Your task to perform on an android device: turn on priority inbox in the gmail app Image 0: 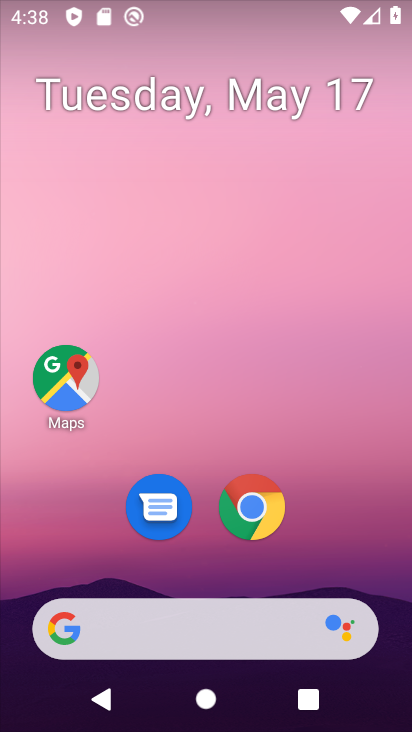
Step 0: drag from (291, 638) to (235, 275)
Your task to perform on an android device: turn on priority inbox in the gmail app Image 1: 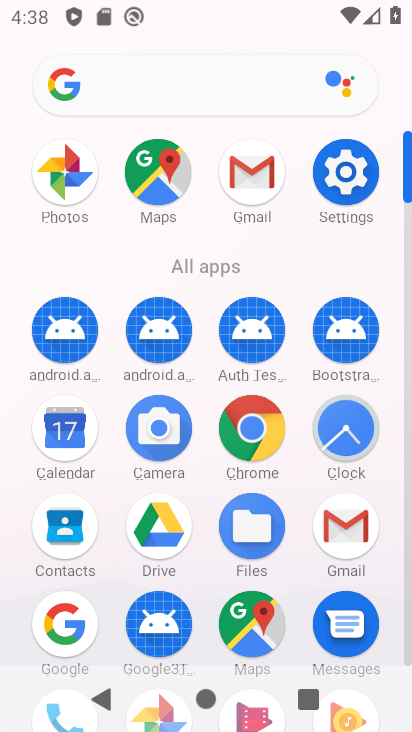
Step 1: click (248, 176)
Your task to perform on an android device: turn on priority inbox in the gmail app Image 2: 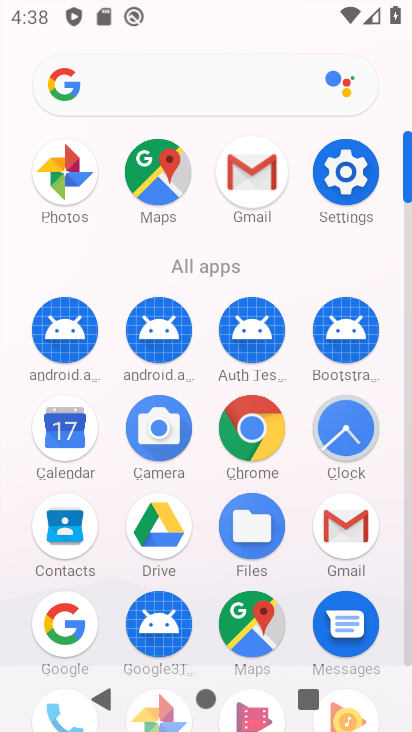
Step 2: click (250, 176)
Your task to perform on an android device: turn on priority inbox in the gmail app Image 3: 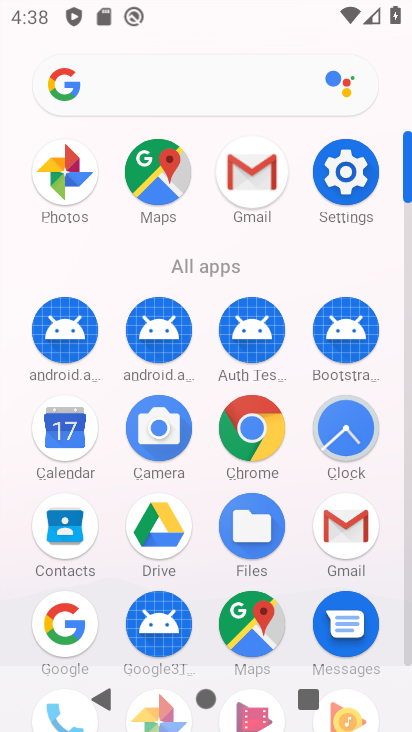
Step 3: click (247, 182)
Your task to perform on an android device: turn on priority inbox in the gmail app Image 4: 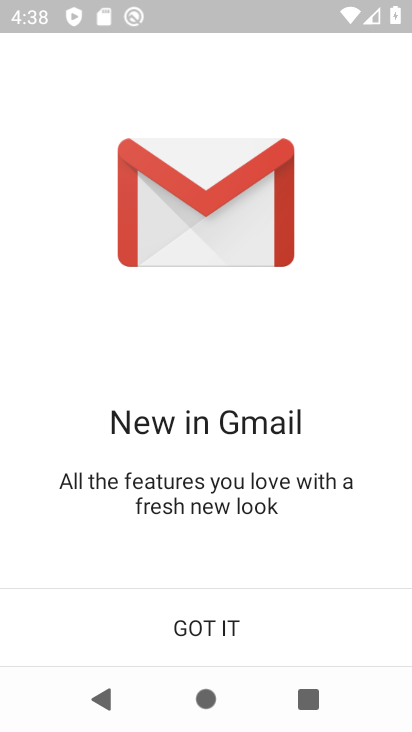
Step 4: click (200, 611)
Your task to perform on an android device: turn on priority inbox in the gmail app Image 5: 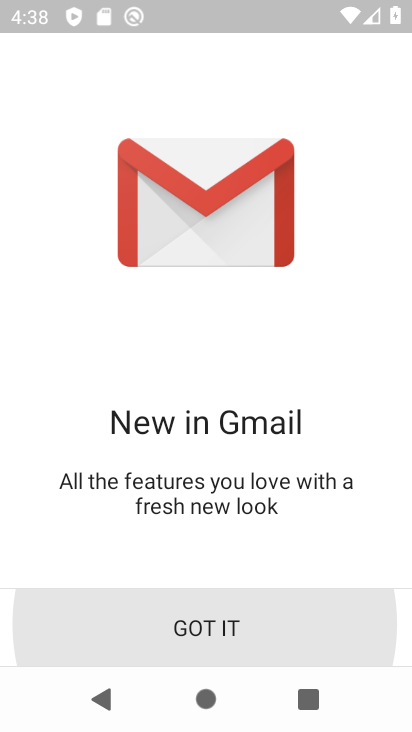
Step 5: click (201, 613)
Your task to perform on an android device: turn on priority inbox in the gmail app Image 6: 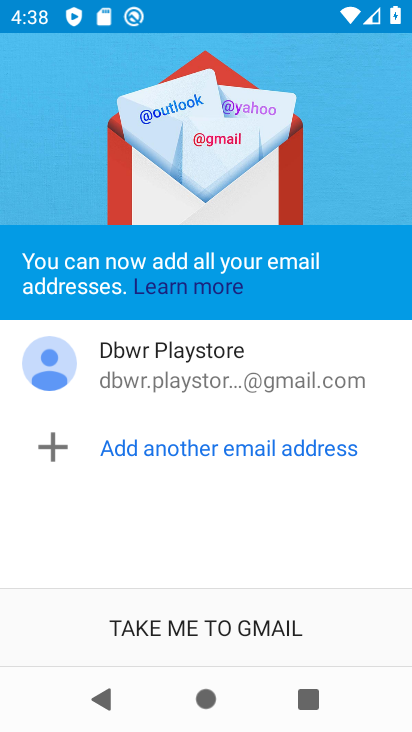
Step 6: click (210, 639)
Your task to perform on an android device: turn on priority inbox in the gmail app Image 7: 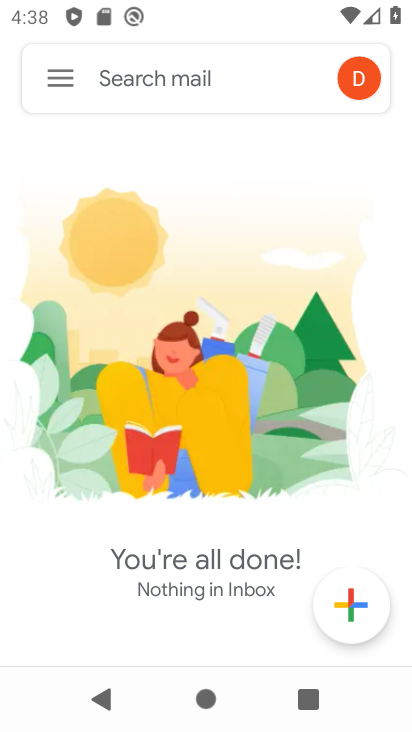
Step 7: click (49, 82)
Your task to perform on an android device: turn on priority inbox in the gmail app Image 8: 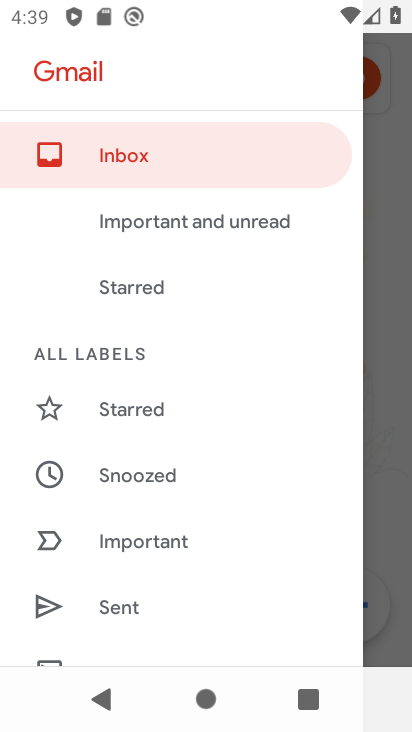
Step 8: drag from (211, 508) to (131, 307)
Your task to perform on an android device: turn on priority inbox in the gmail app Image 9: 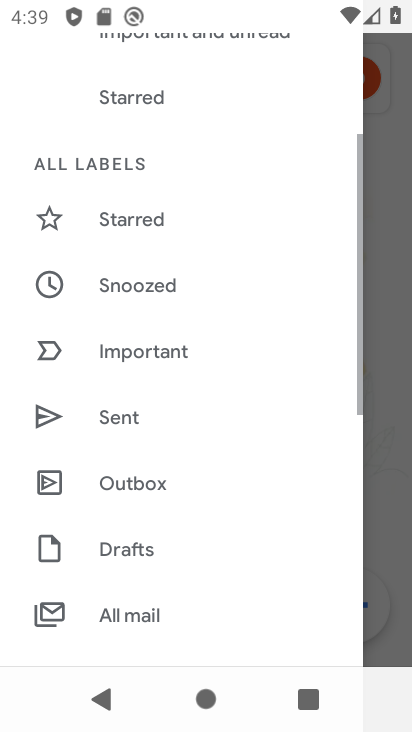
Step 9: drag from (174, 444) to (174, 215)
Your task to perform on an android device: turn on priority inbox in the gmail app Image 10: 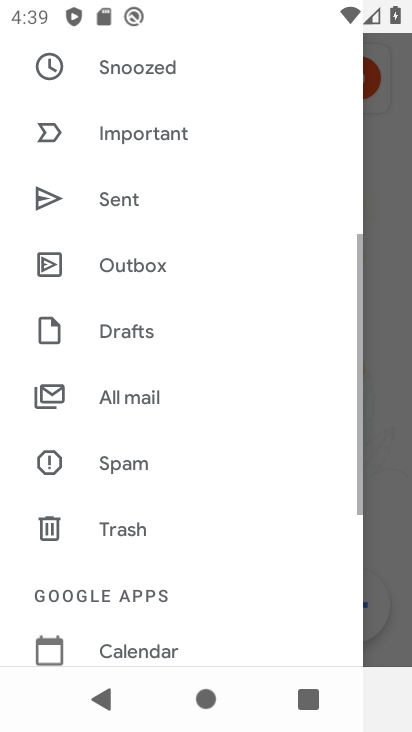
Step 10: drag from (248, 567) to (209, 281)
Your task to perform on an android device: turn on priority inbox in the gmail app Image 11: 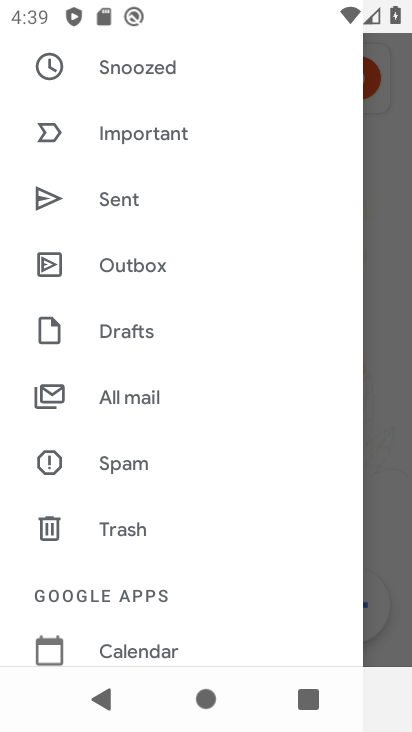
Step 11: drag from (199, 570) to (190, 148)
Your task to perform on an android device: turn on priority inbox in the gmail app Image 12: 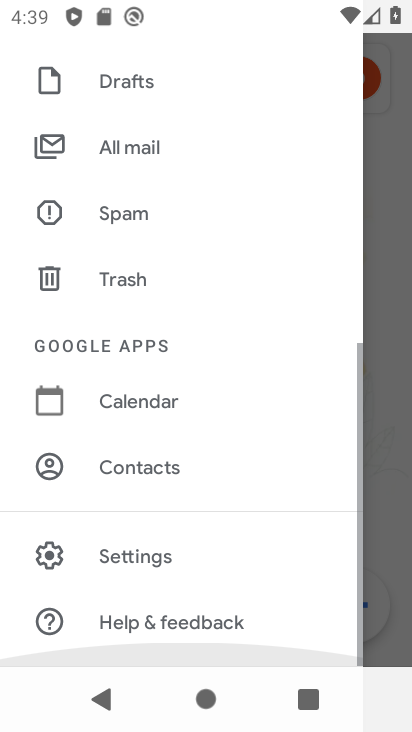
Step 12: drag from (187, 433) to (186, 65)
Your task to perform on an android device: turn on priority inbox in the gmail app Image 13: 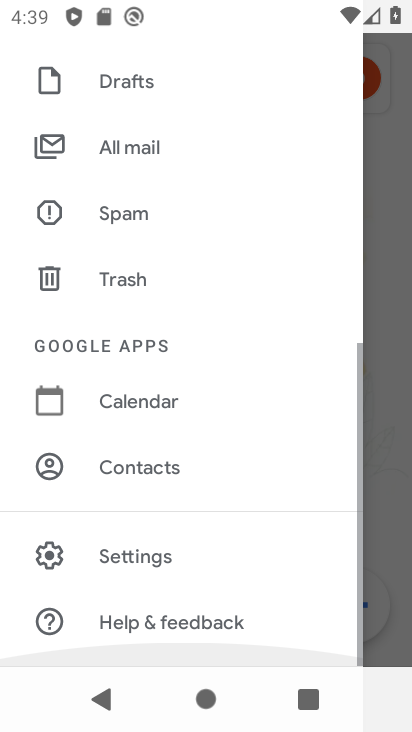
Step 13: drag from (184, 410) to (151, 146)
Your task to perform on an android device: turn on priority inbox in the gmail app Image 14: 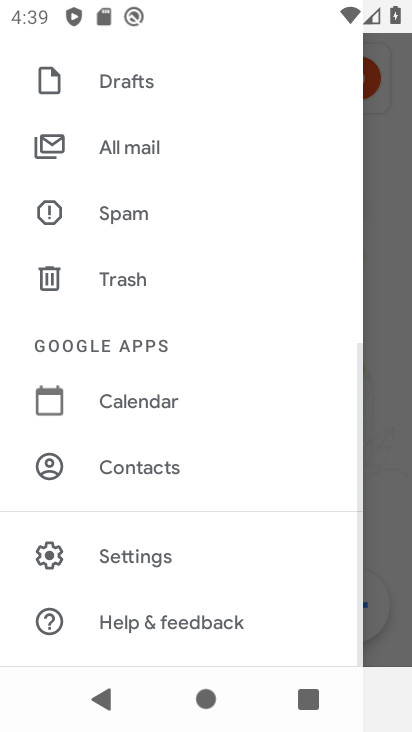
Step 14: click (134, 560)
Your task to perform on an android device: turn on priority inbox in the gmail app Image 15: 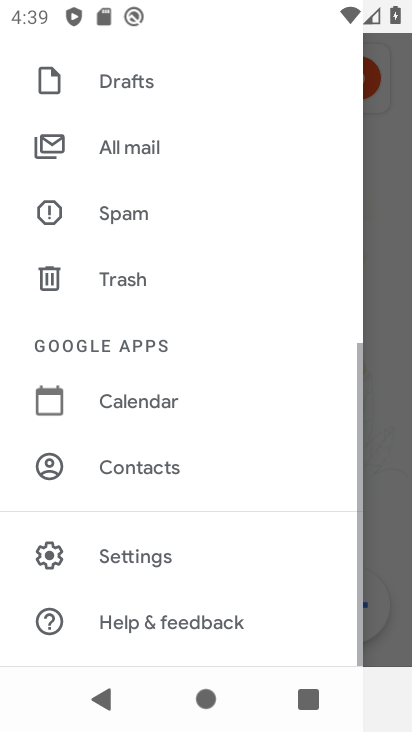
Step 15: click (128, 552)
Your task to perform on an android device: turn on priority inbox in the gmail app Image 16: 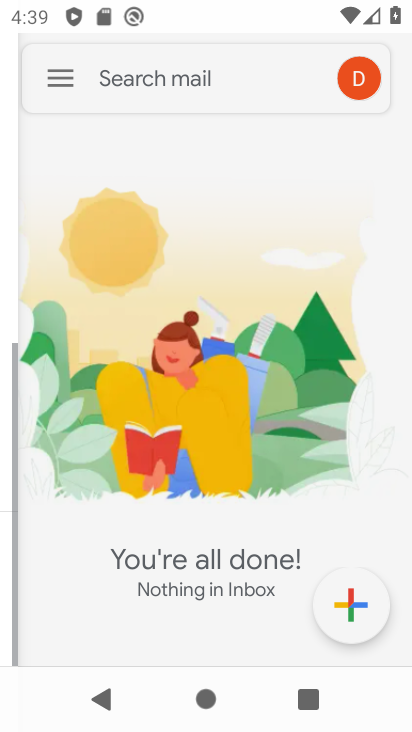
Step 16: click (128, 552)
Your task to perform on an android device: turn on priority inbox in the gmail app Image 17: 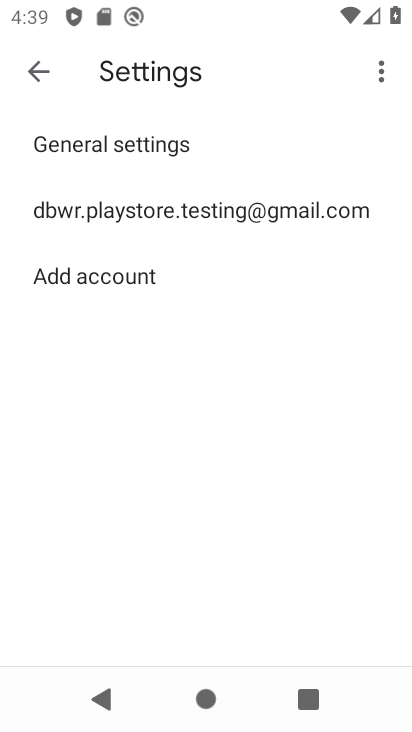
Step 17: click (168, 210)
Your task to perform on an android device: turn on priority inbox in the gmail app Image 18: 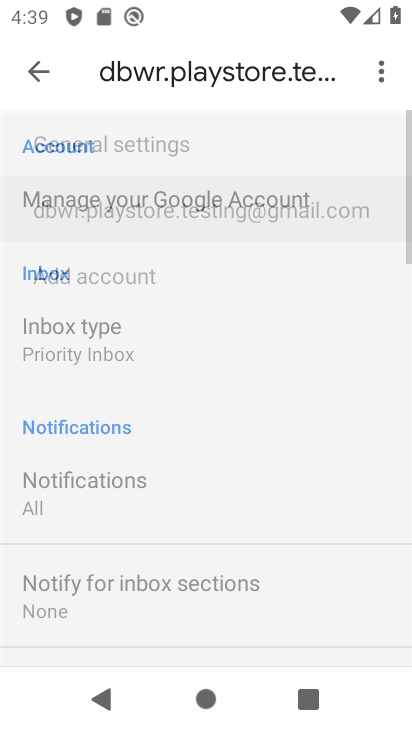
Step 18: click (169, 210)
Your task to perform on an android device: turn on priority inbox in the gmail app Image 19: 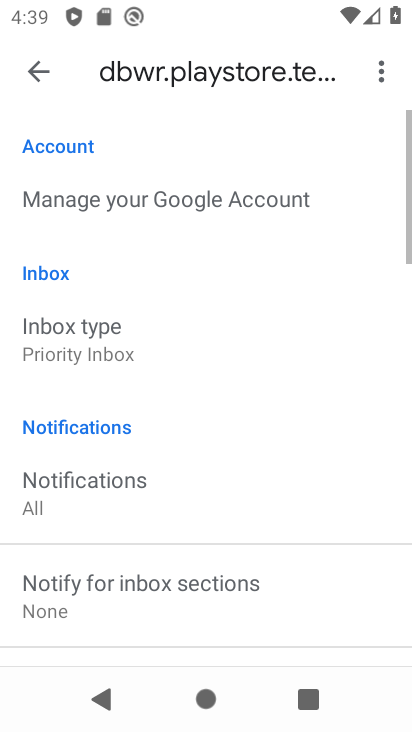
Step 19: click (171, 215)
Your task to perform on an android device: turn on priority inbox in the gmail app Image 20: 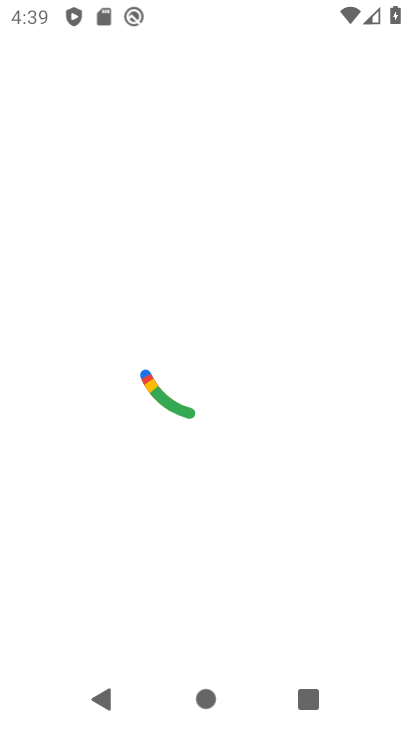
Step 20: press back button
Your task to perform on an android device: turn on priority inbox in the gmail app Image 21: 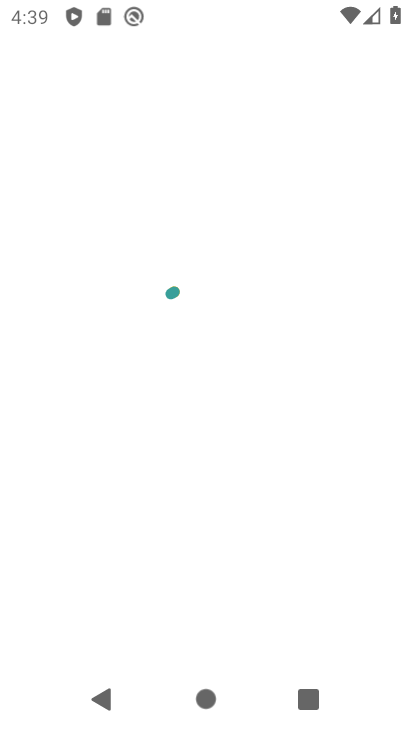
Step 21: press back button
Your task to perform on an android device: turn on priority inbox in the gmail app Image 22: 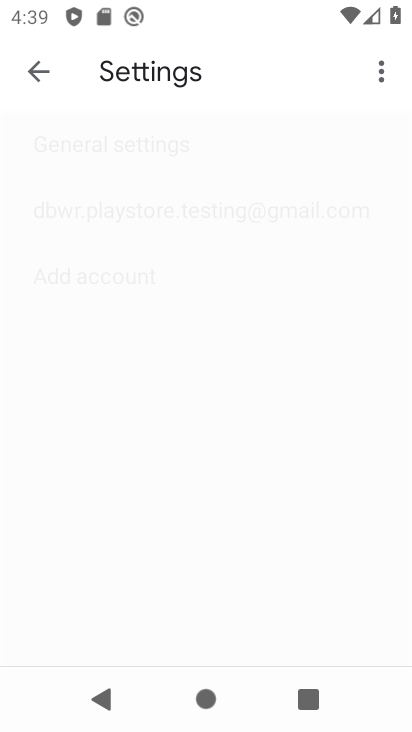
Step 22: press back button
Your task to perform on an android device: turn on priority inbox in the gmail app Image 23: 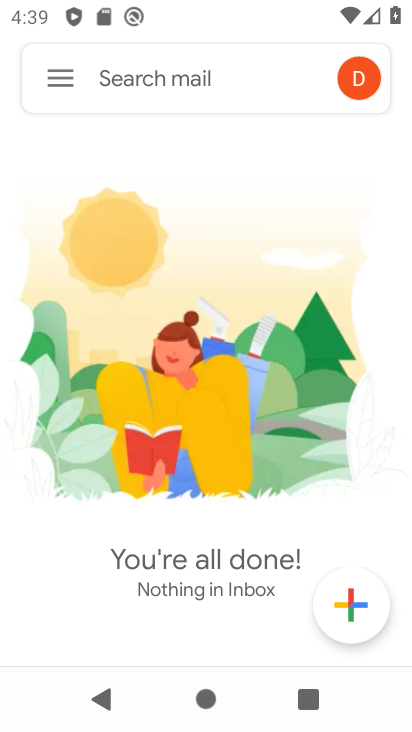
Step 23: click (68, 73)
Your task to perform on an android device: turn on priority inbox in the gmail app Image 24: 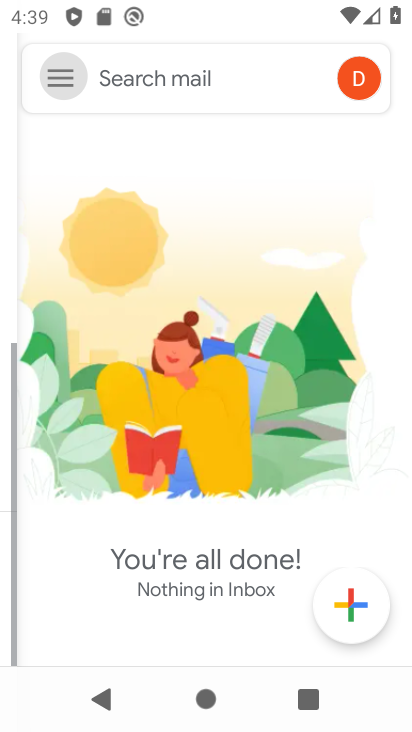
Step 24: click (67, 73)
Your task to perform on an android device: turn on priority inbox in the gmail app Image 25: 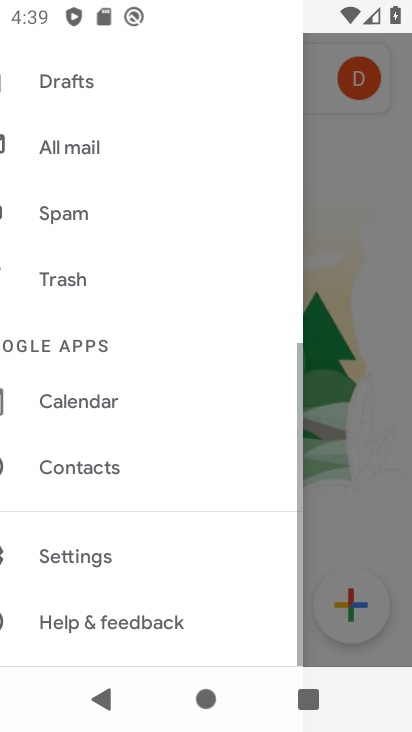
Step 25: click (66, 79)
Your task to perform on an android device: turn on priority inbox in the gmail app Image 26: 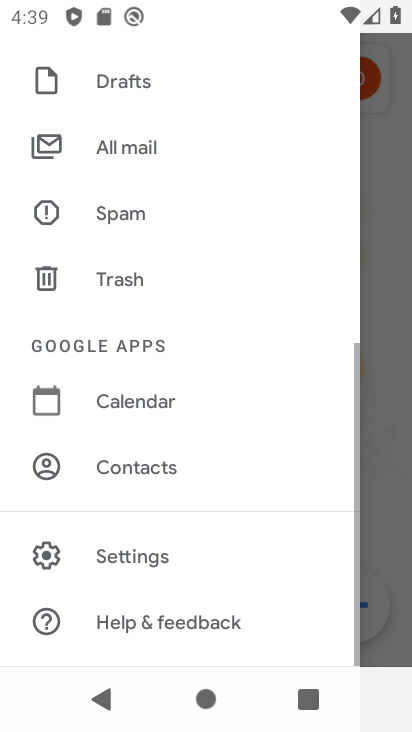
Step 26: click (68, 80)
Your task to perform on an android device: turn on priority inbox in the gmail app Image 27: 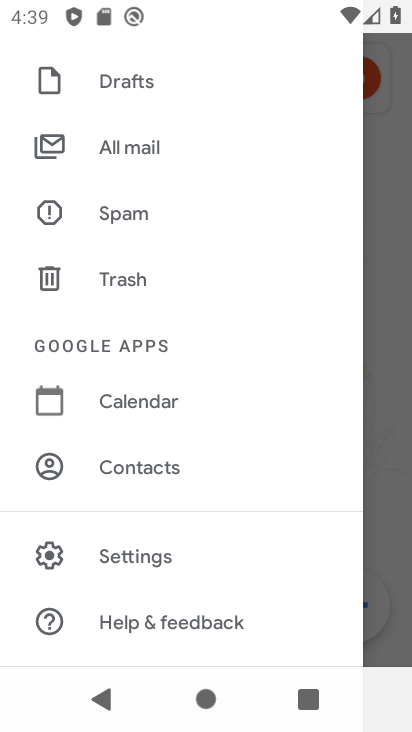
Step 27: click (131, 557)
Your task to perform on an android device: turn on priority inbox in the gmail app Image 28: 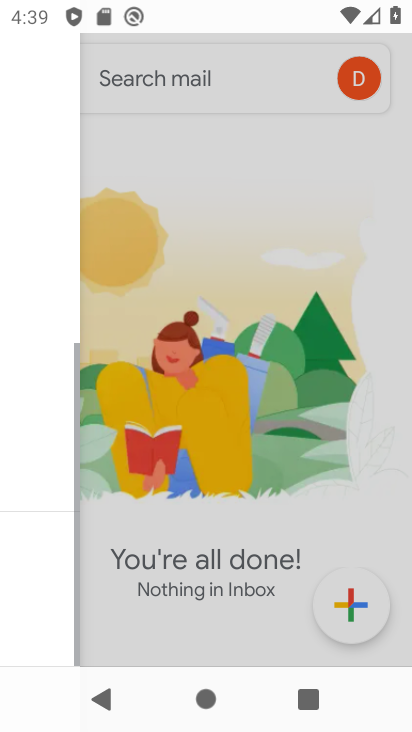
Step 28: click (130, 556)
Your task to perform on an android device: turn on priority inbox in the gmail app Image 29: 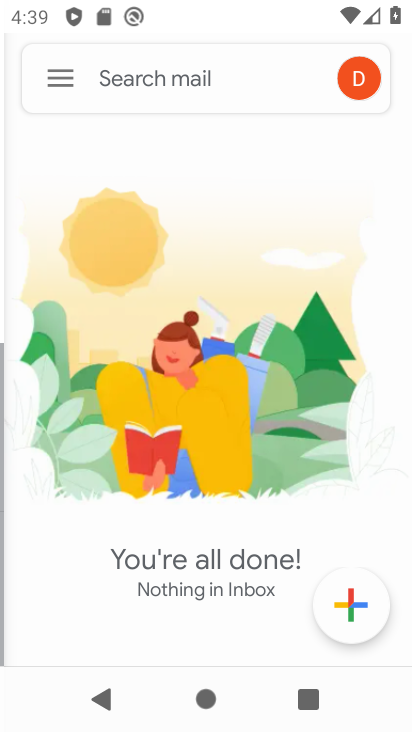
Step 29: click (127, 554)
Your task to perform on an android device: turn on priority inbox in the gmail app Image 30: 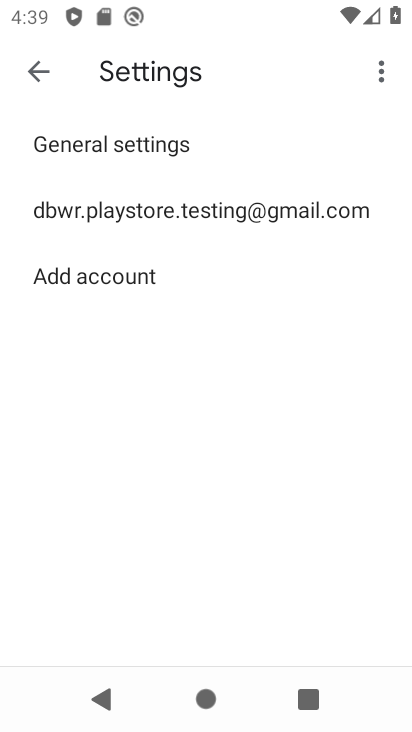
Step 30: click (145, 202)
Your task to perform on an android device: turn on priority inbox in the gmail app Image 31: 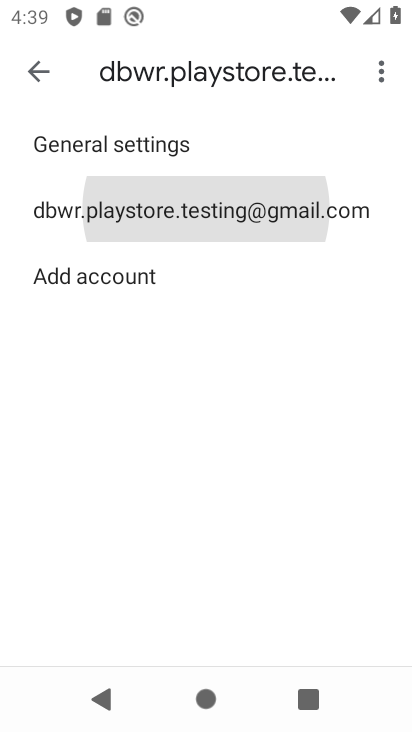
Step 31: click (145, 202)
Your task to perform on an android device: turn on priority inbox in the gmail app Image 32: 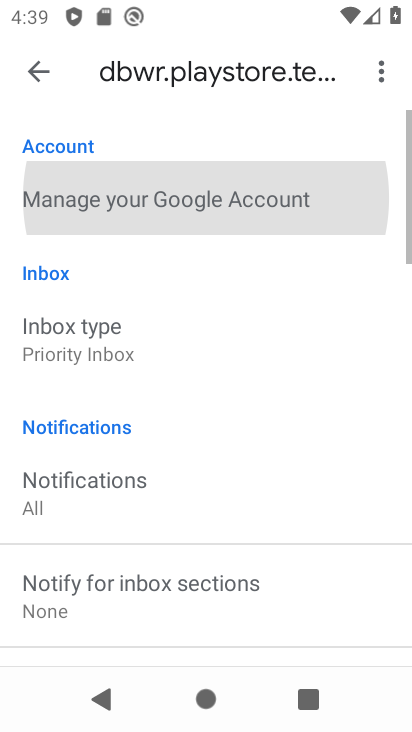
Step 32: click (148, 205)
Your task to perform on an android device: turn on priority inbox in the gmail app Image 33: 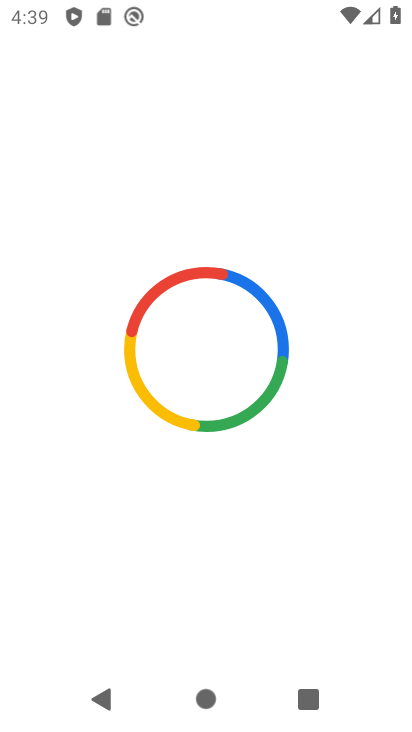
Step 33: click (93, 696)
Your task to perform on an android device: turn on priority inbox in the gmail app Image 34: 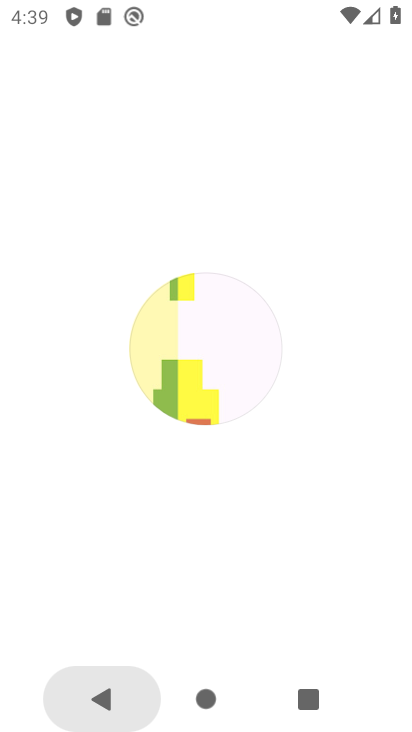
Step 34: click (93, 696)
Your task to perform on an android device: turn on priority inbox in the gmail app Image 35: 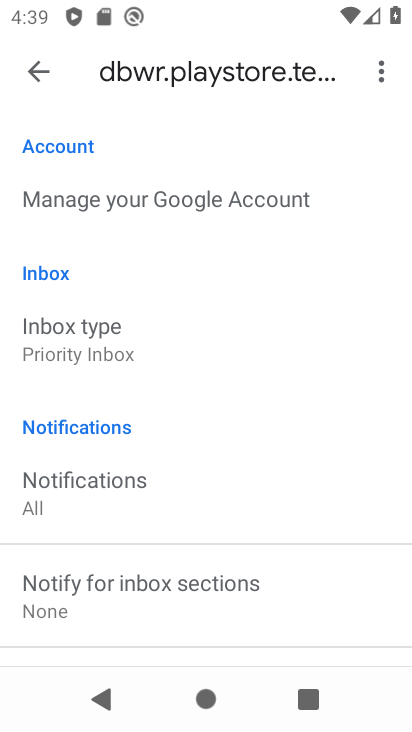
Step 35: click (64, 332)
Your task to perform on an android device: turn on priority inbox in the gmail app Image 36: 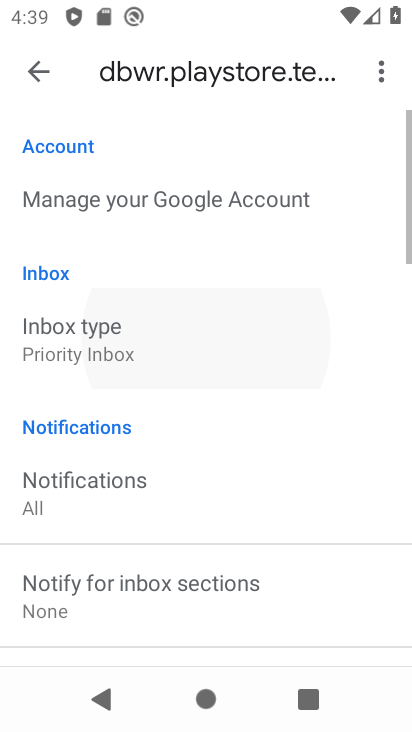
Step 36: click (70, 343)
Your task to perform on an android device: turn on priority inbox in the gmail app Image 37: 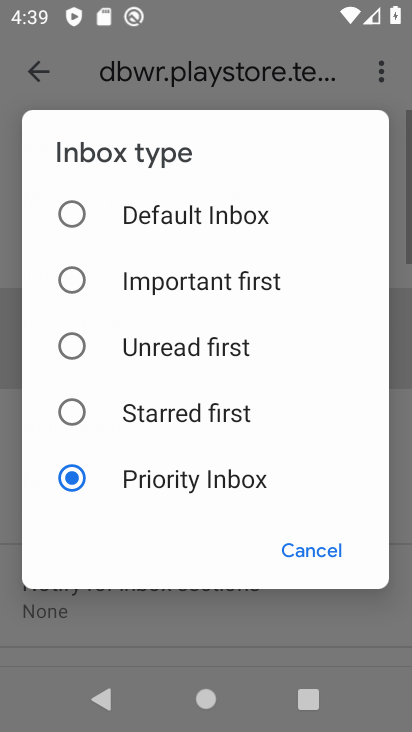
Step 37: click (70, 343)
Your task to perform on an android device: turn on priority inbox in the gmail app Image 38: 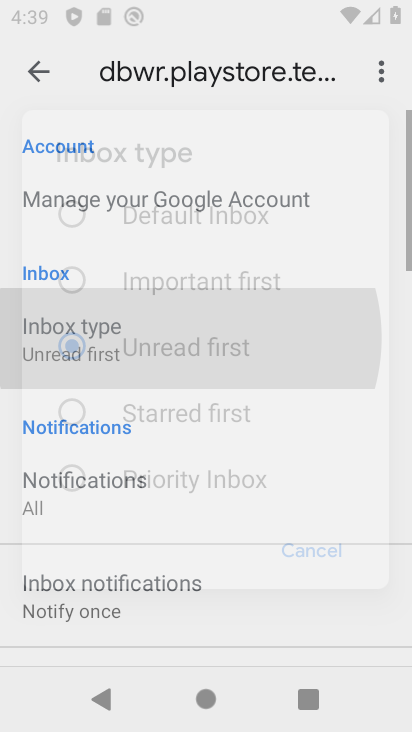
Step 38: click (68, 337)
Your task to perform on an android device: turn on priority inbox in the gmail app Image 39: 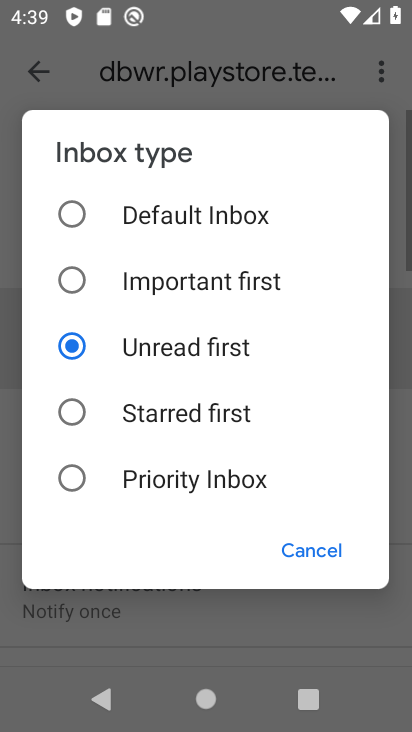
Step 39: click (68, 337)
Your task to perform on an android device: turn on priority inbox in the gmail app Image 40: 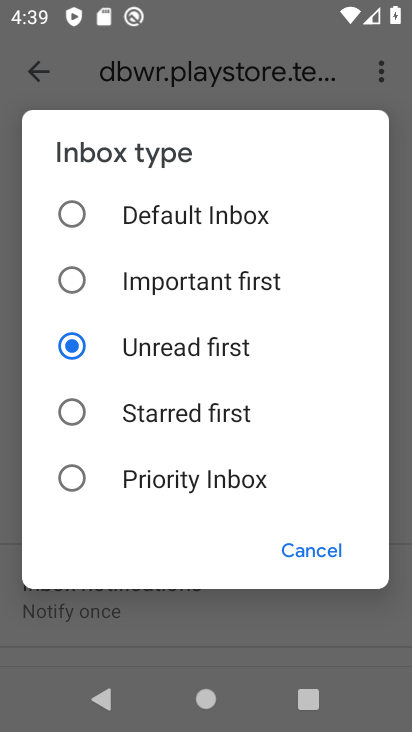
Step 40: click (77, 474)
Your task to perform on an android device: turn on priority inbox in the gmail app Image 41: 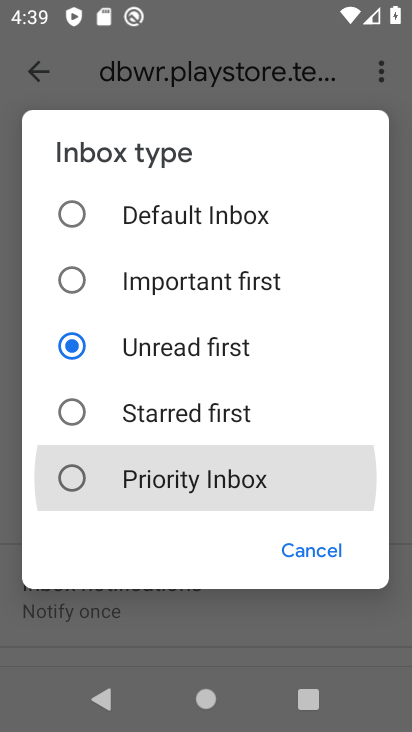
Step 41: click (77, 473)
Your task to perform on an android device: turn on priority inbox in the gmail app Image 42: 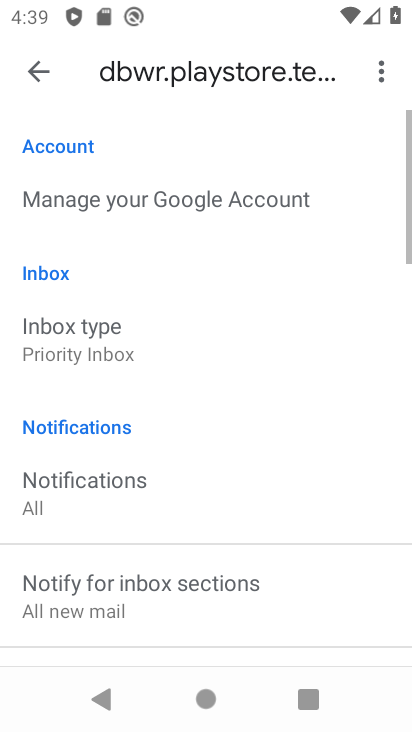
Step 42: click (76, 472)
Your task to perform on an android device: turn on priority inbox in the gmail app Image 43: 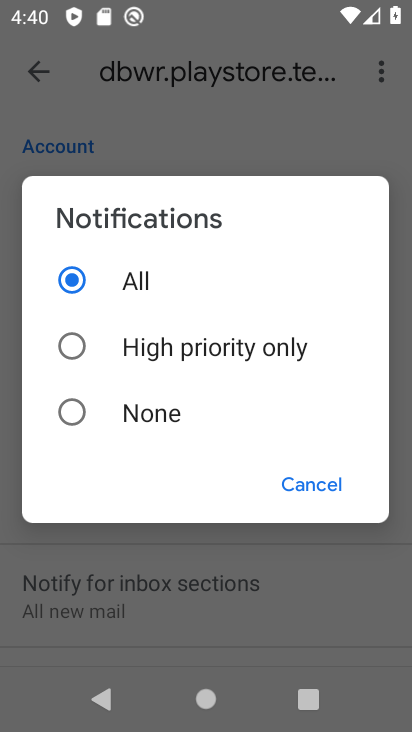
Step 43: click (303, 472)
Your task to perform on an android device: turn on priority inbox in the gmail app Image 44: 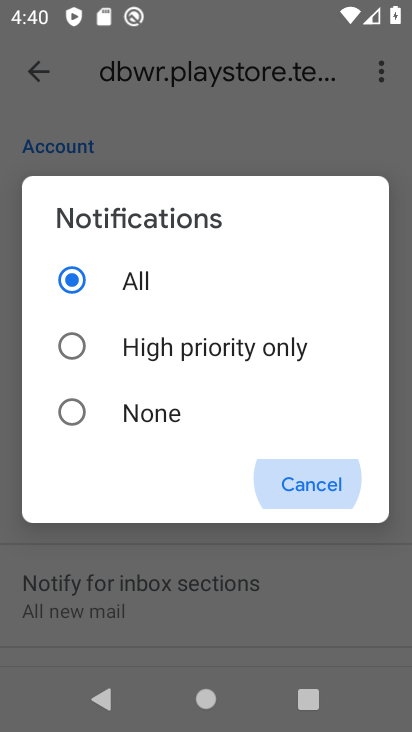
Step 44: click (302, 472)
Your task to perform on an android device: turn on priority inbox in the gmail app Image 45: 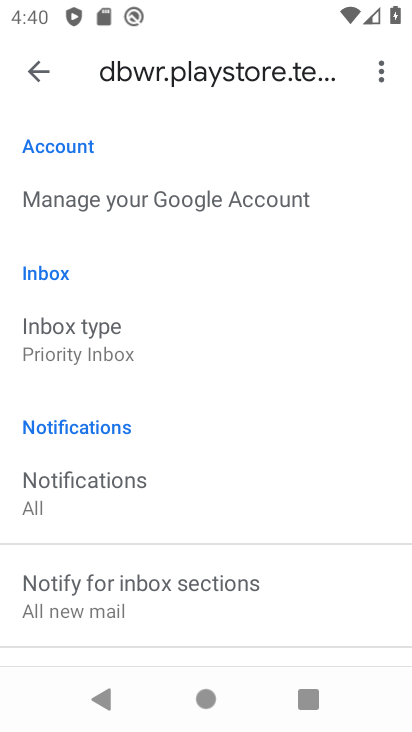
Step 45: click (302, 472)
Your task to perform on an android device: turn on priority inbox in the gmail app Image 46: 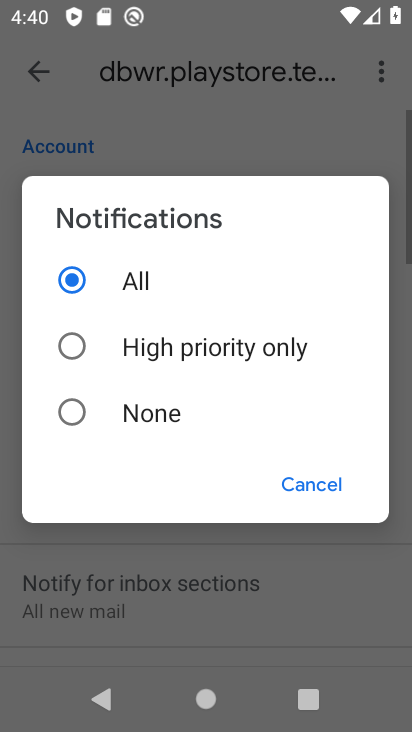
Step 46: click (304, 485)
Your task to perform on an android device: turn on priority inbox in the gmail app Image 47: 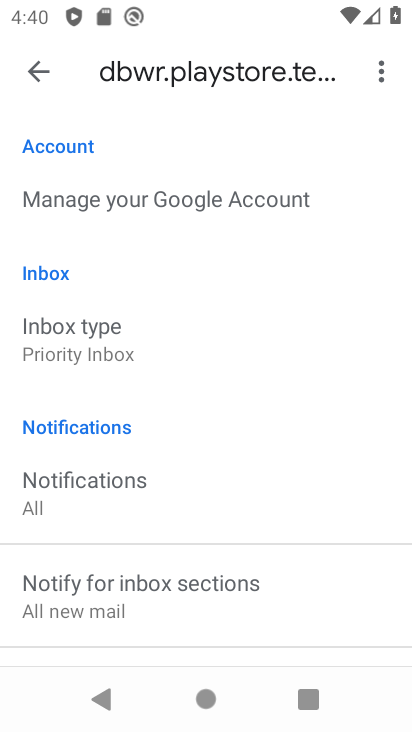
Step 47: task complete